Your task to perform on an android device: change the upload size in google photos Image 0: 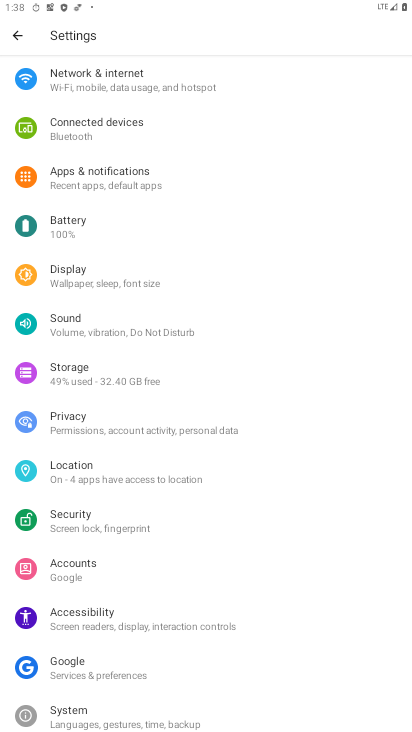
Step 0: click (378, 470)
Your task to perform on an android device: change the upload size in google photos Image 1: 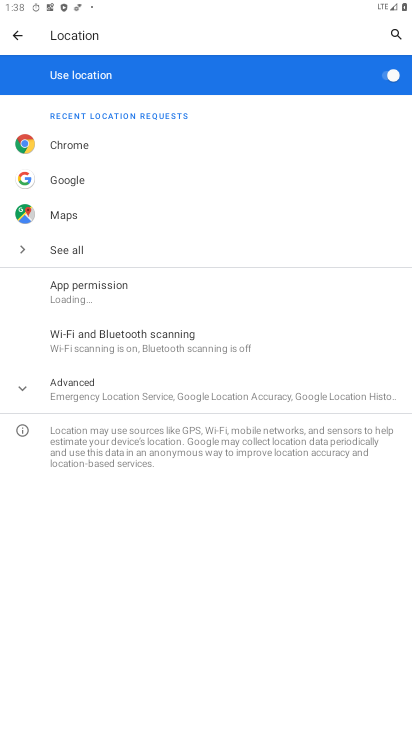
Step 1: press home button
Your task to perform on an android device: change the upload size in google photos Image 2: 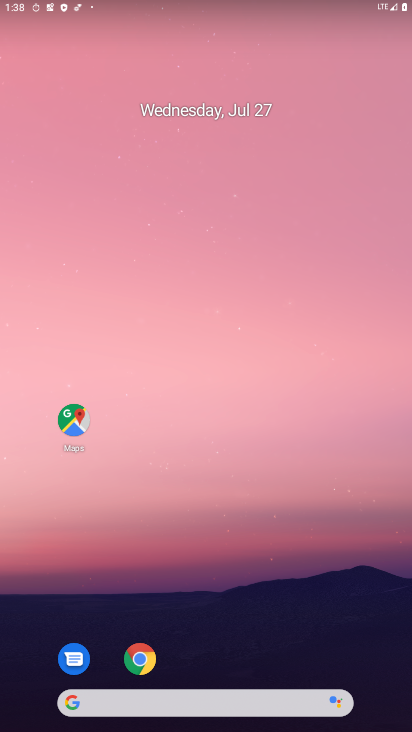
Step 2: drag from (178, 581) to (194, 42)
Your task to perform on an android device: change the upload size in google photos Image 3: 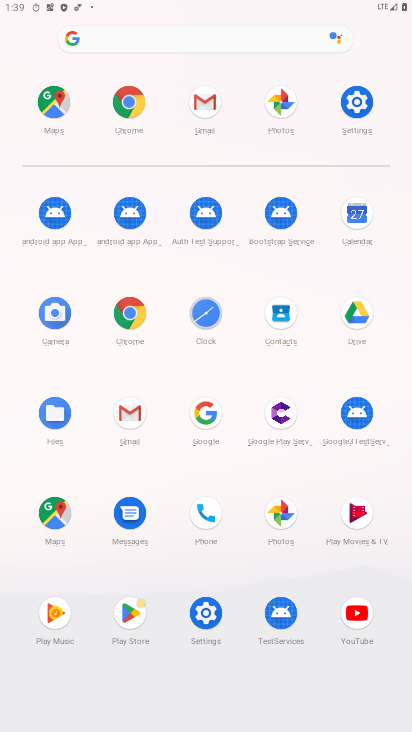
Step 3: click (277, 109)
Your task to perform on an android device: change the upload size in google photos Image 4: 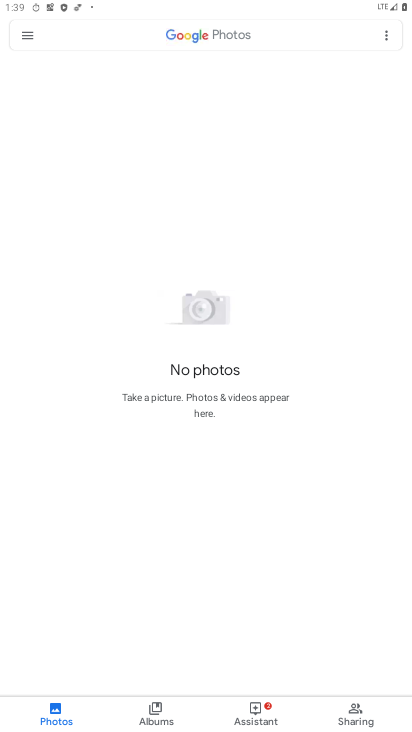
Step 4: click (34, 35)
Your task to perform on an android device: change the upload size in google photos Image 5: 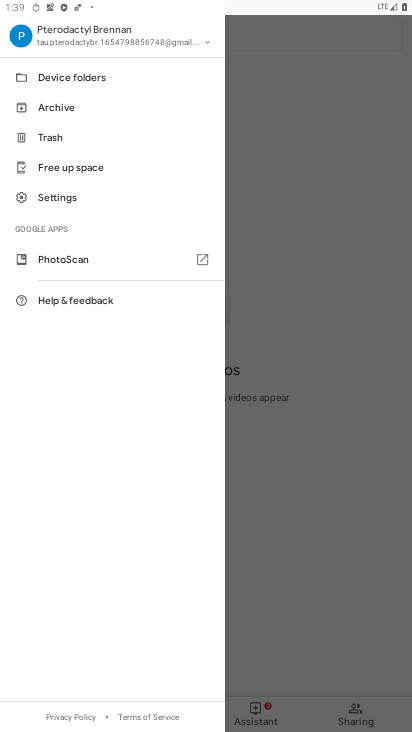
Step 5: click (60, 200)
Your task to perform on an android device: change the upload size in google photos Image 6: 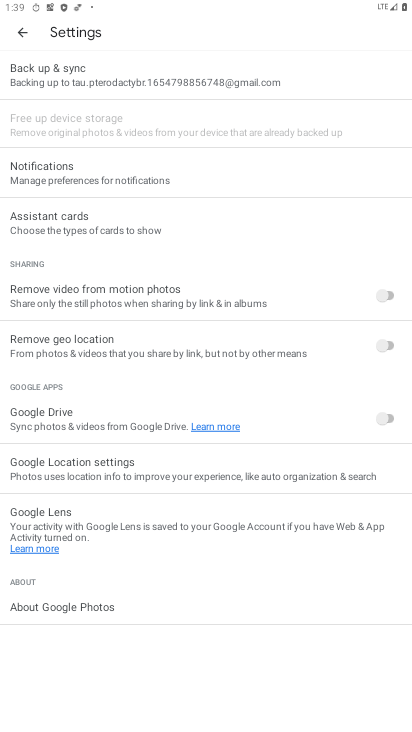
Step 6: click (57, 71)
Your task to perform on an android device: change the upload size in google photos Image 7: 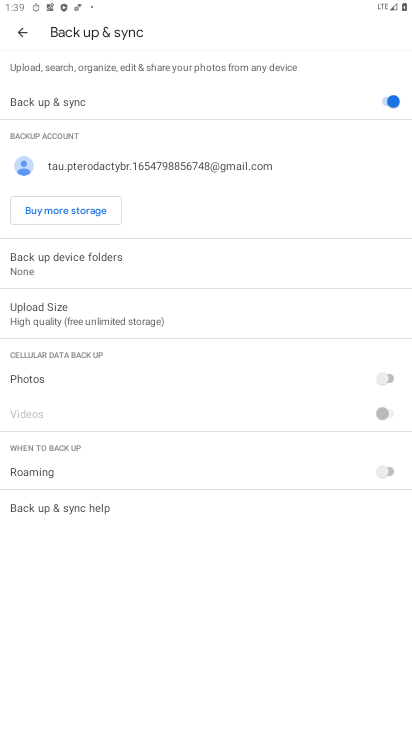
Step 7: click (65, 313)
Your task to perform on an android device: change the upload size in google photos Image 8: 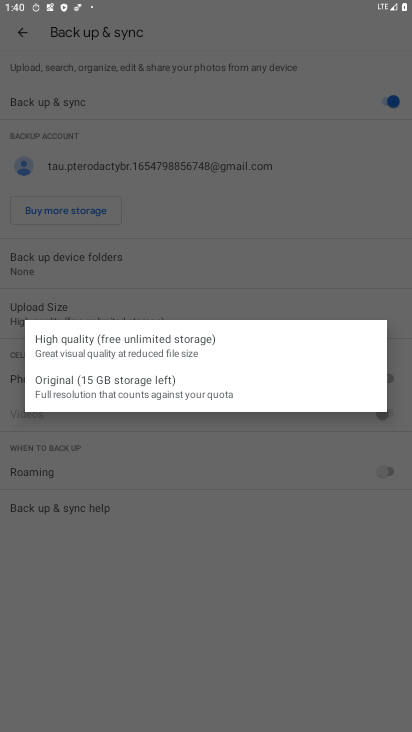
Step 8: click (77, 383)
Your task to perform on an android device: change the upload size in google photos Image 9: 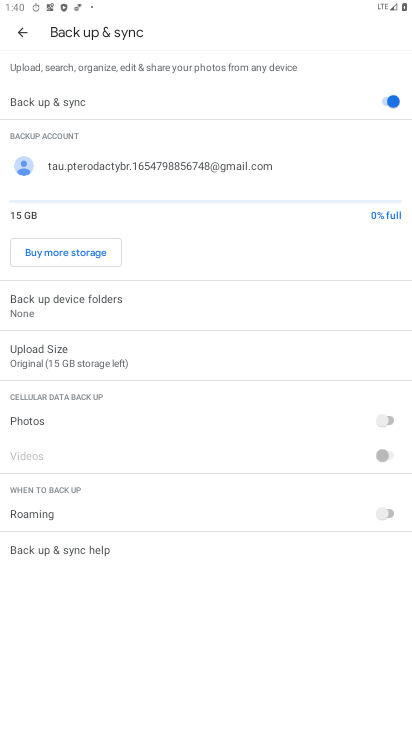
Step 9: task complete